Your task to perform on an android device: find photos in the google photos app Image 0: 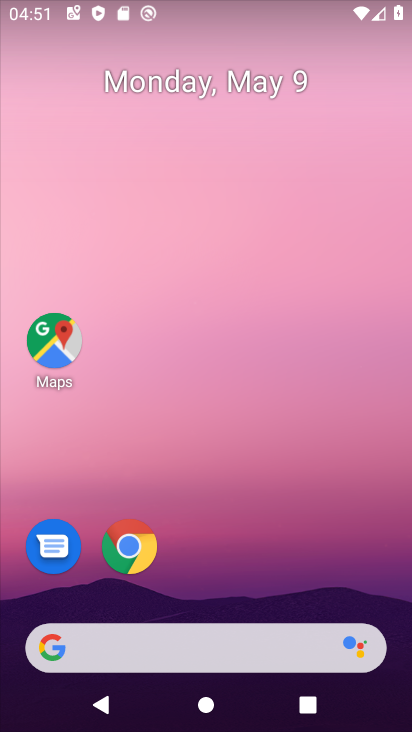
Step 0: drag from (215, 571) to (280, 167)
Your task to perform on an android device: find photos in the google photos app Image 1: 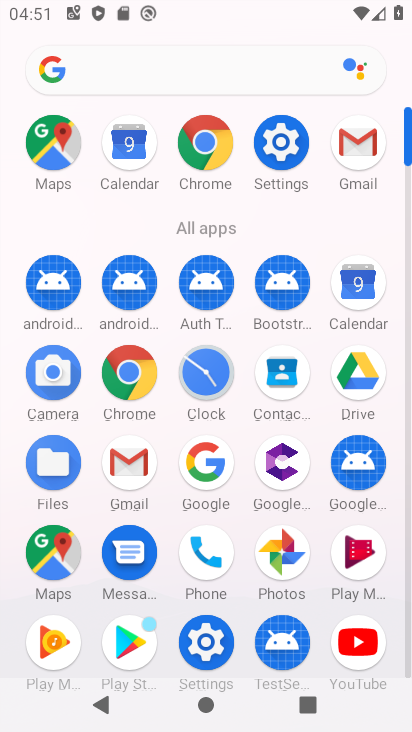
Step 1: click (269, 540)
Your task to perform on an android device: find photos in the google photos app Image 2: 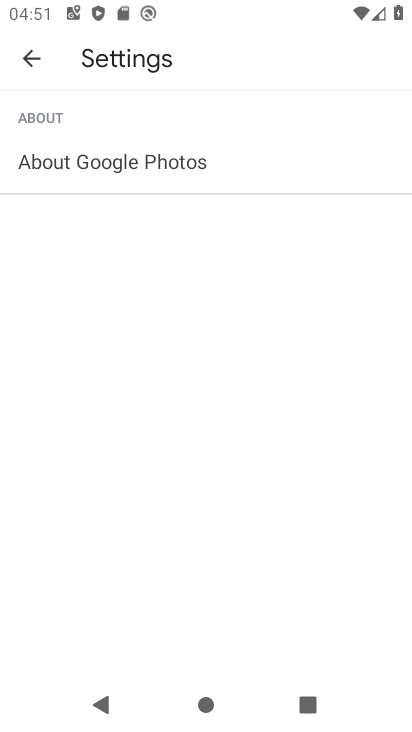
Step 2: click (45, 67)
Your task to perform on an android device: find photos in the google photos app Image 3: 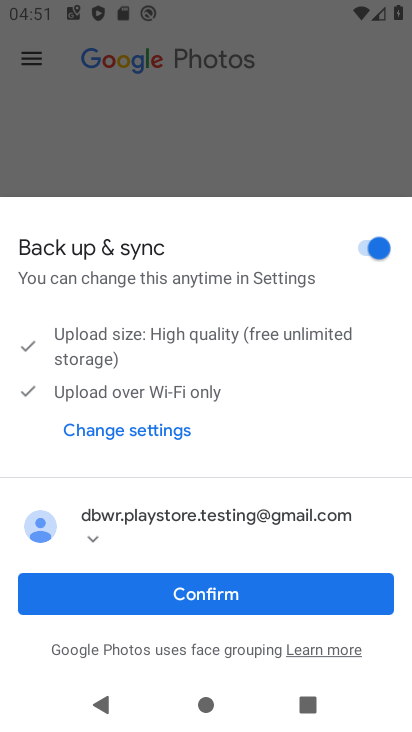
Step 3: click (165, 610)
Your task to perform on an android device: find photos in the google photos app Image 4: 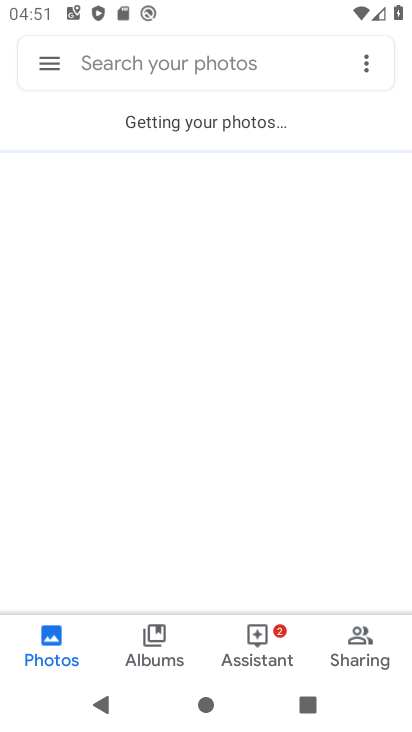
Step 4: click (213, 318)
Your task to perform on an android device: find photos in the google photos app Image 5: 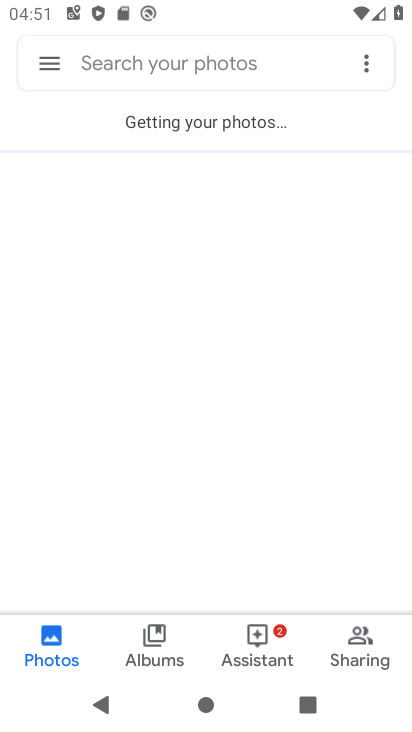
Step 5: click (214, 319)
Your task to perform on an android device: find photos in the google photos app Image 6: 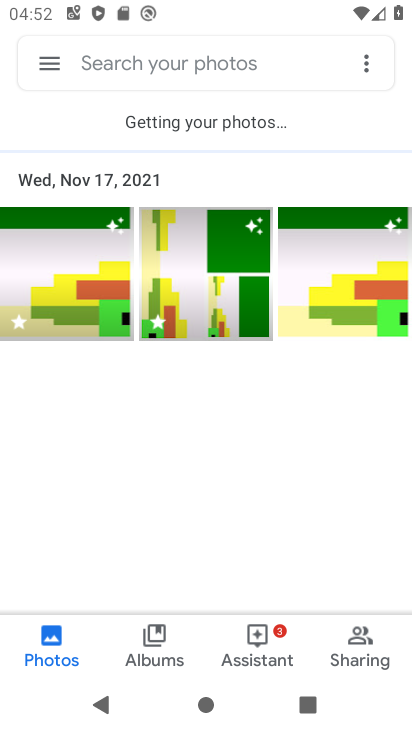
Step 6: task complete